Your task to perform on an android device: open device folders in google photos Image 0: 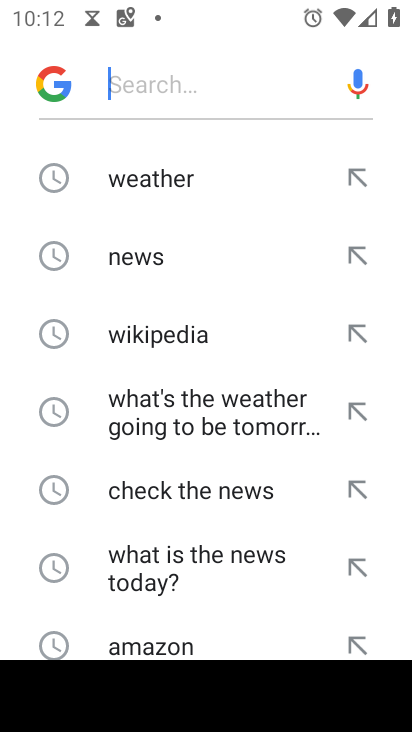
Step 0: press back button
Your task to perform on an android device: open device folders in google photos Image 1: 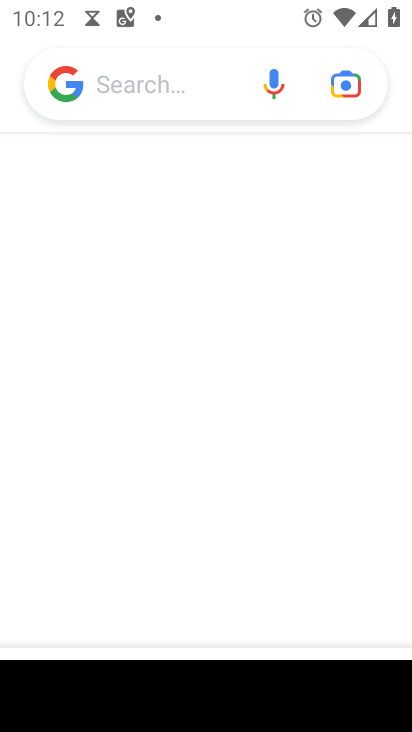
Step 1: press back button
Your task to perform on an android device: open device folders in google photos Image 2: 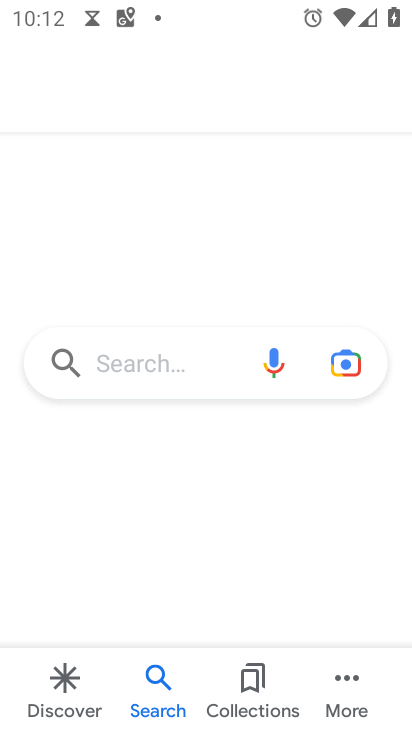
Step 2: press back button
Your task to perform on an android device: open device folders in google photos Image 3: 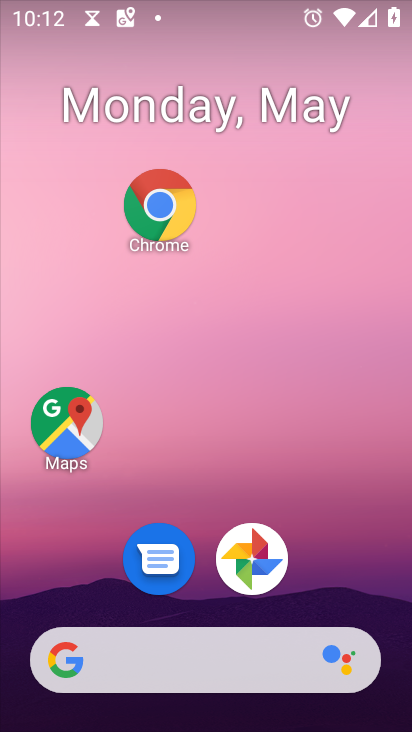
Step 3: drag from (223, 705) to (154, 2)
Your task to perform on an android device: open device folders in google photos Image 4: 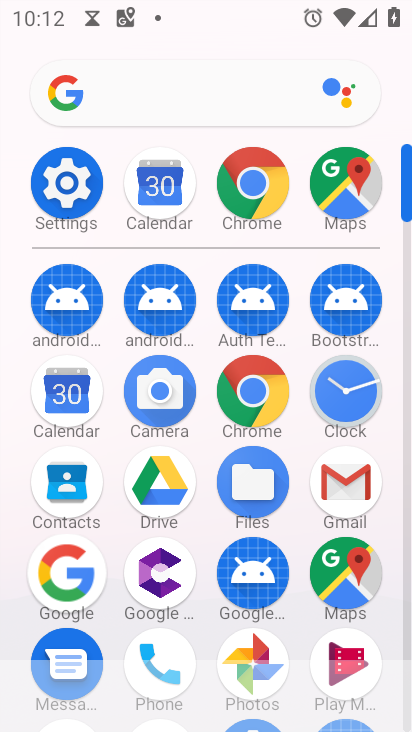
Step 4: click (250, 661)
Your task to perform on an android device: open device folders in google photos Image 5: 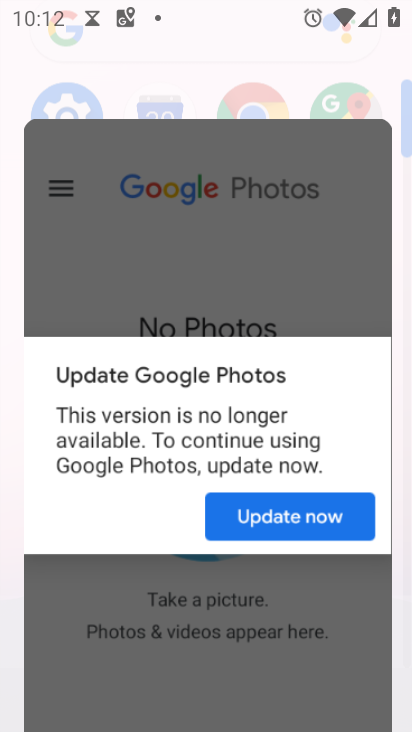
Step 5: click (249, 653)
Your task to perform on an android device: open device folders in google photos Image 6: 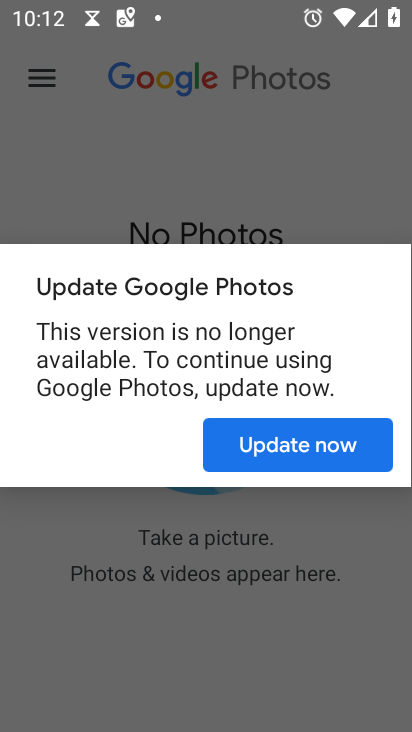
Step 6: click (102, 166)
Your task to perform on an android device: open device folders in google photos Image 7: 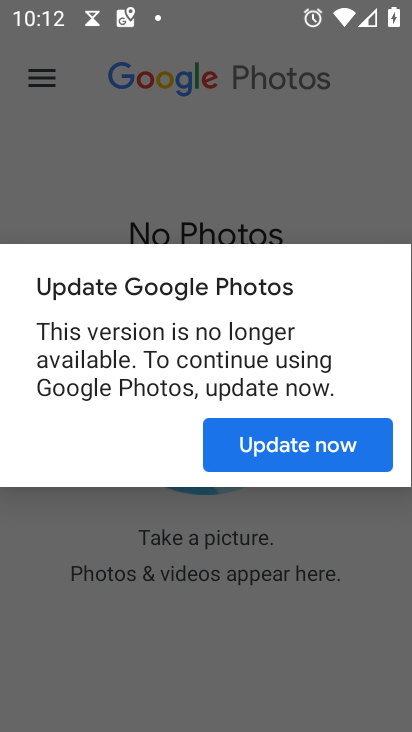
Step 7: click (107, 165)
Your task to perform on an android device: open device folders in google photos Image 8: 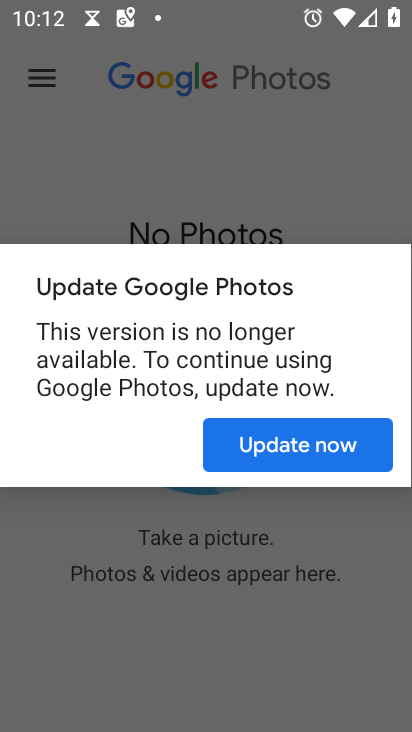
Step 8: click (113, 164)
Your task to perform on an android device: open device folders in google photos Image 9: 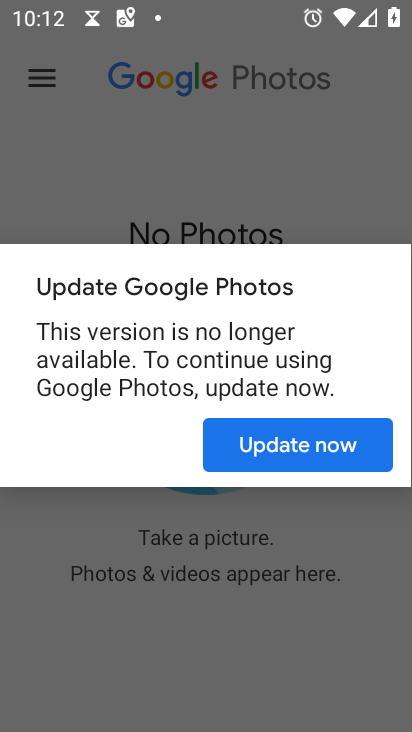
Step 9: click (113, 163)
Your task to perform on an android device: open device folders in google photos Image 10: 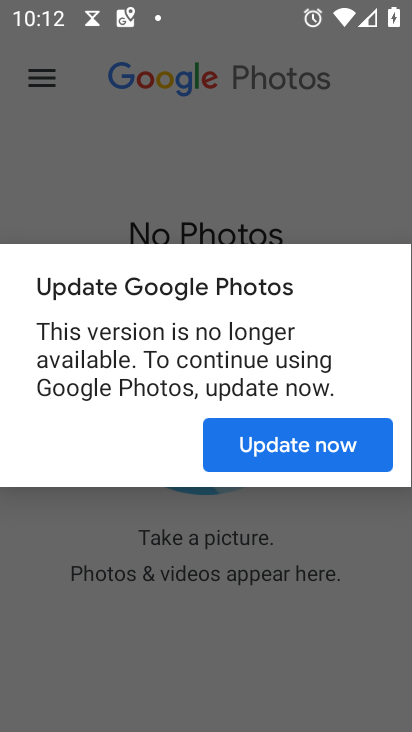
Step 10: click (114, 162)
Your task to perform on an android device: open device folders in google photos Image 11: 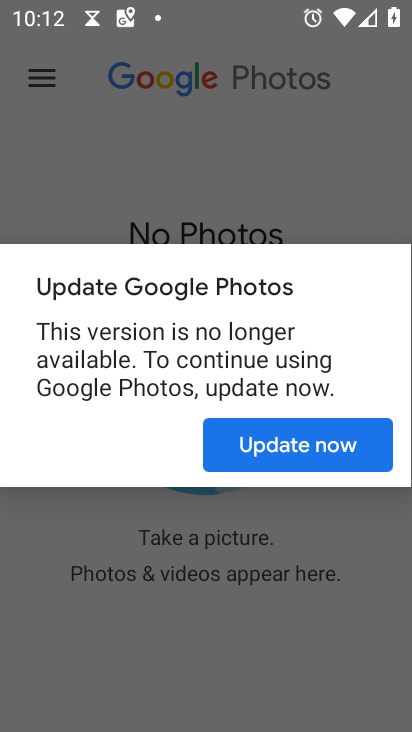
Step 11: click (114, 162)
Your task to perform on an android device: open device folders in google photos Image 12: 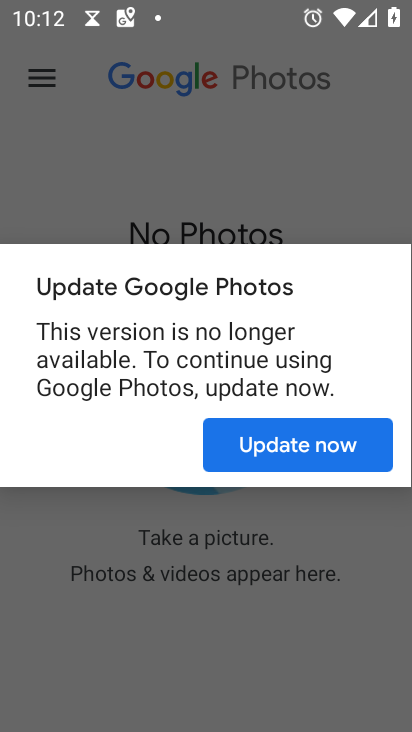
Step 12: click (156, 154)
Your task to perform on an android device: open device folders in google photos Image 13: 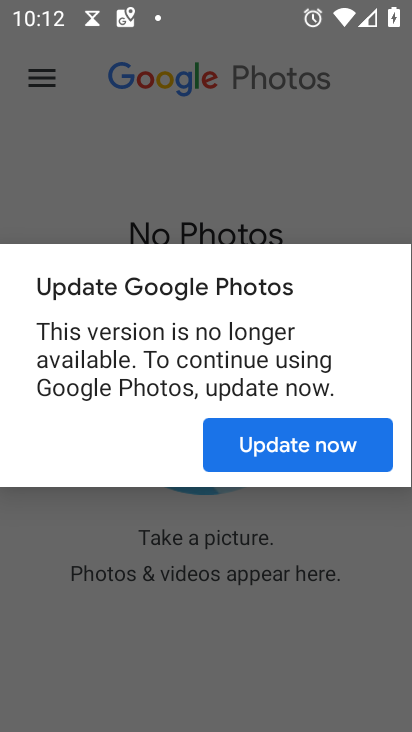
Step 13: click (156, 154)
Your task to perform on an android device: open device folders in google photos Image 14: 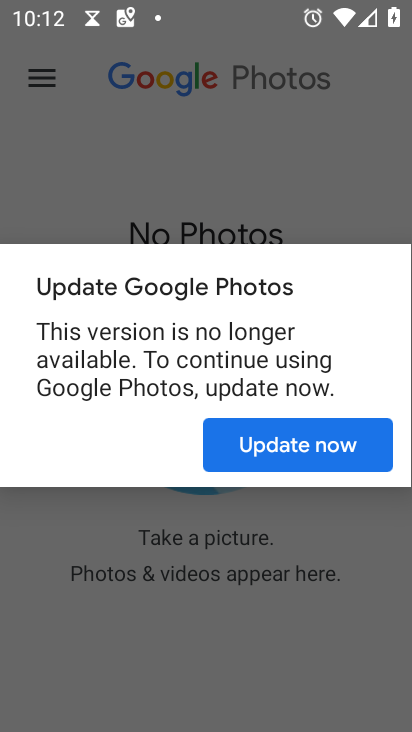
Step 14: click (158, 154)
Your task to perform on an android device: open device folders in google photos Image 15: 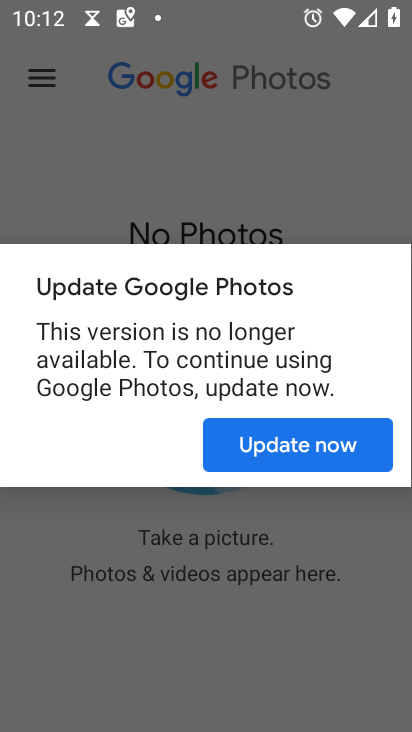
Step 15: click (158, 154)
Your task to perform on an android device: open device folders in google photos Image 16: 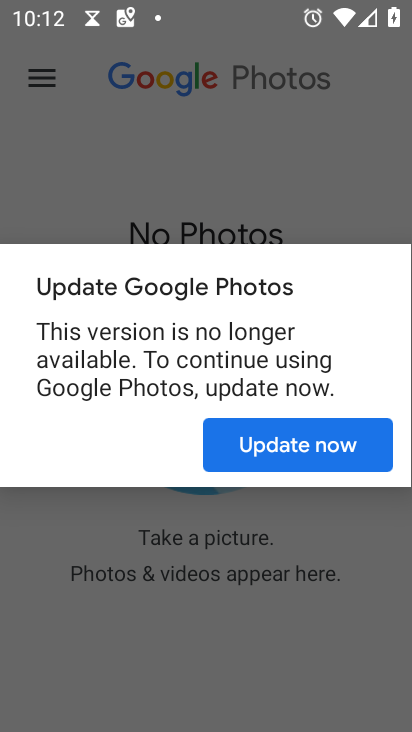
Step 16: click (158, 154)
Your task to perform on an android device: open device folders in google photos Image 17: 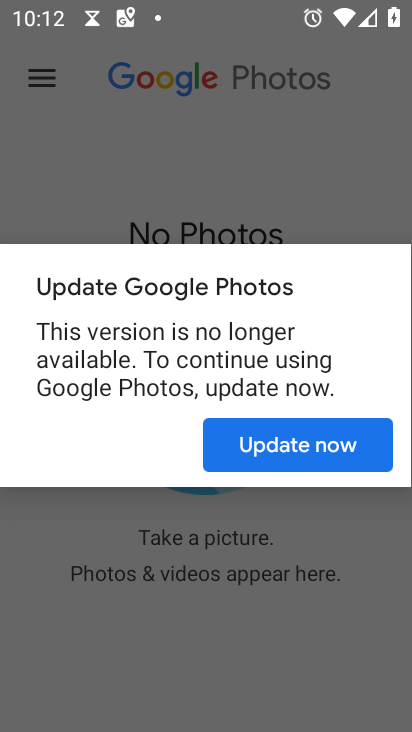
Step 17: click (318, 515)
Your task to perform on an android device: open device folders in google photos Image 18: 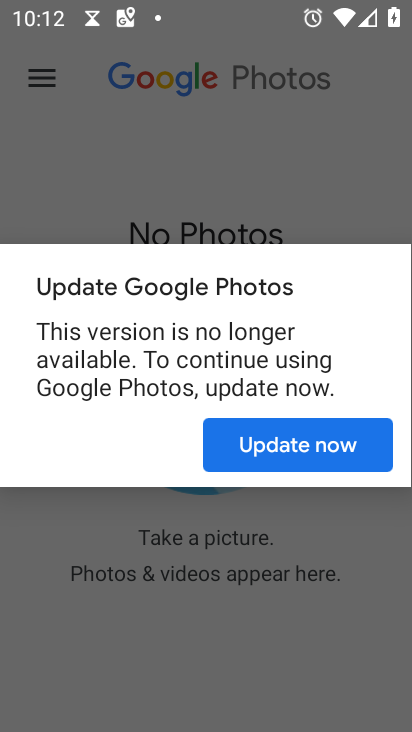
Step 18: click (341, 497)
Your task to perform on an android device: open device folders in google photos Image 19: 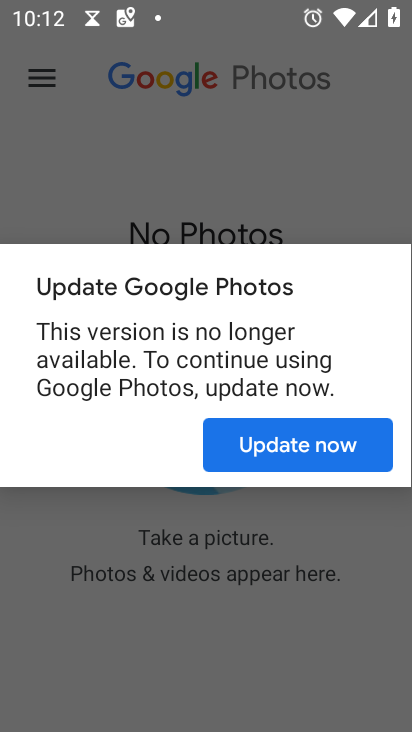
Step 19: press back button
Your task to perform on an android device: open device folders in google photos Image 20: 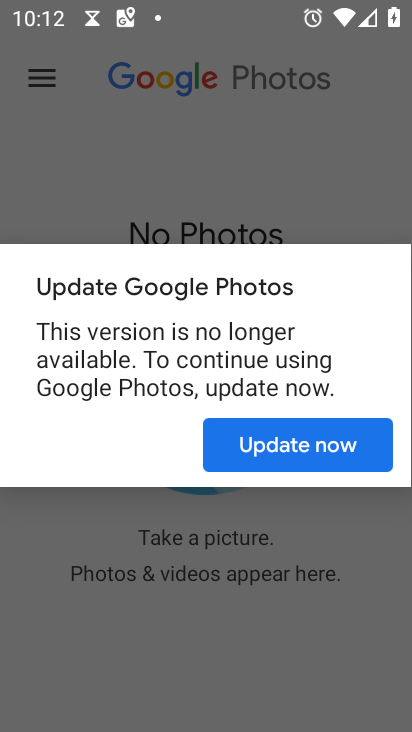
Step 20: press back button
Your task to perform on an android device: open device folders in google photos Image 21: 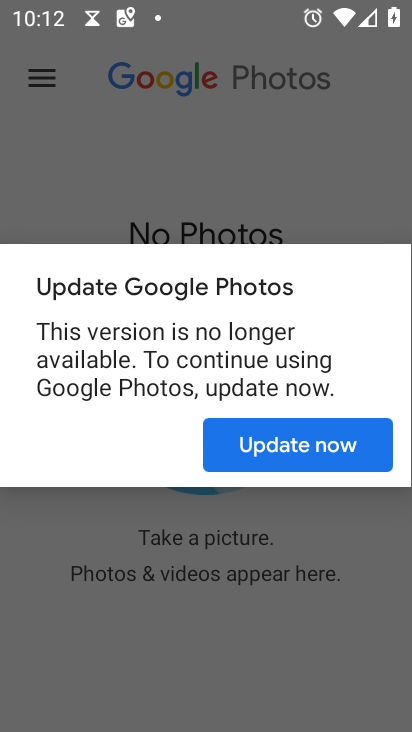
Step 21: press back button
Your task to perform on an android device: open device folders in google photos Image 22: 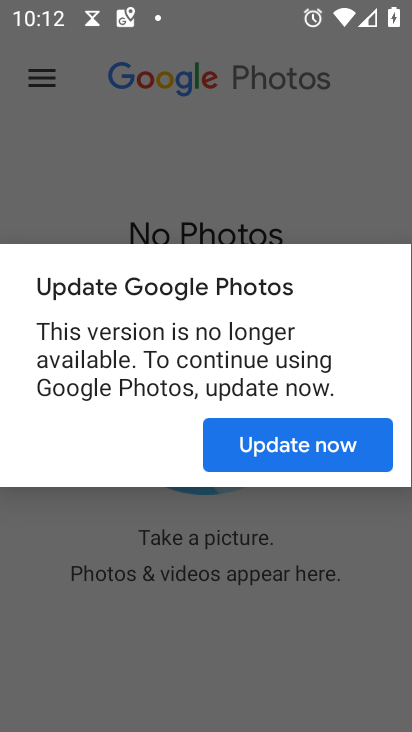
Step 22: click (301, 446)
Your task to perform on an android device: open device folders in google photos Image 23: 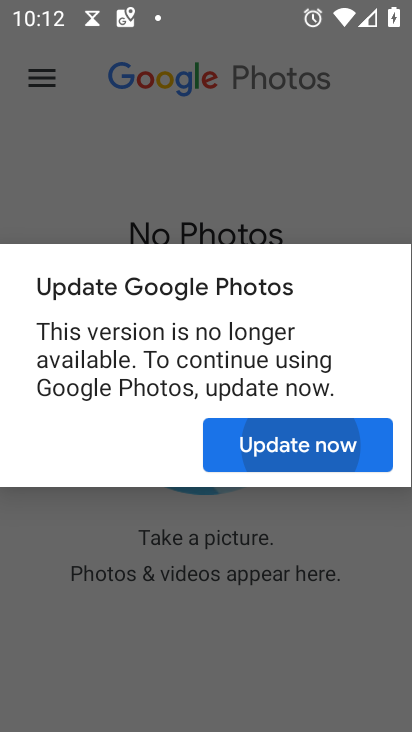
Step 23: click (301, 446)
Your task to perform on an android device: open device folders in google photos Image 24: 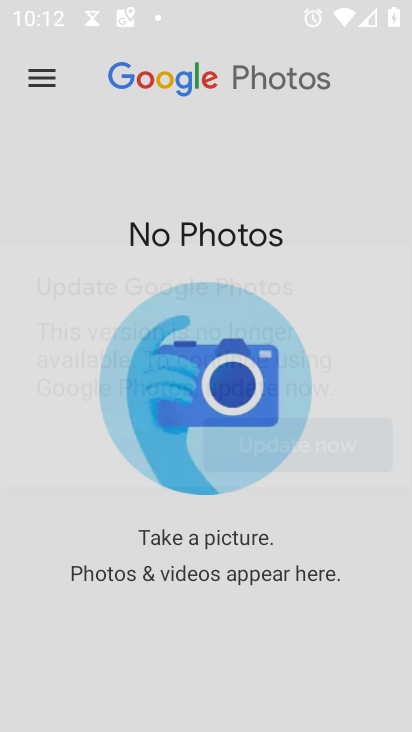
Step 24: click (302, 446)
Your task to perform on an android device: open device folders in google photos Image 25: 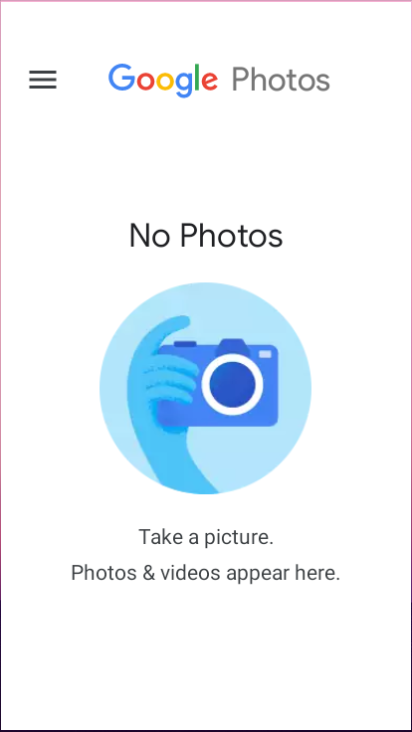
Step 25: click (302, 446)
Your task to perform on an android device: open device folders in google photos Image 26: 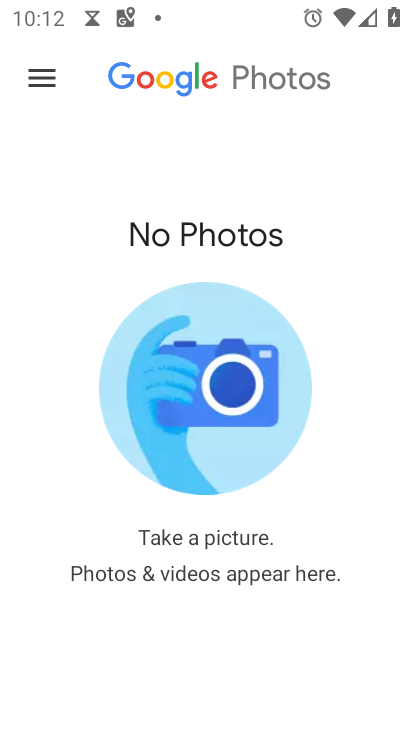
Step 26: click (212, 370)
Your task to perform on an android device: open device folders in google photos Image 27: 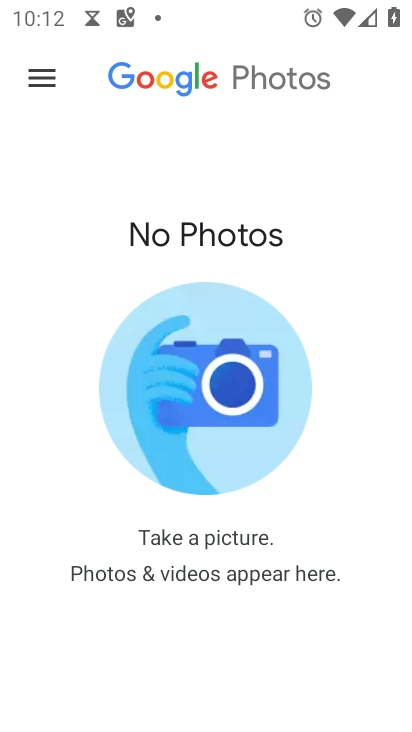
Step 27: click (213, 368)
Your task to perform on an android device: open device folders in google photos Image 28: 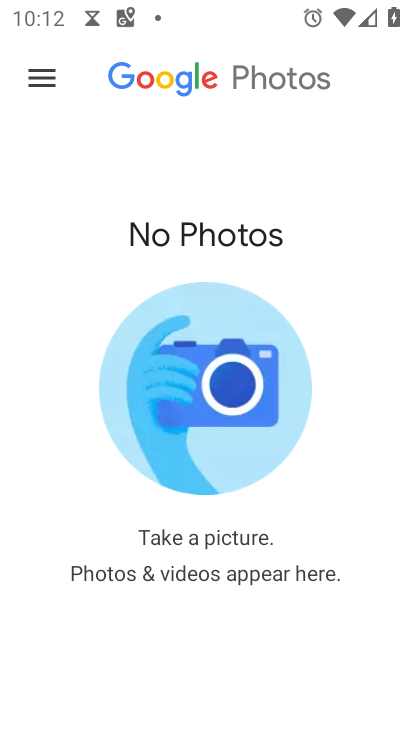
Step 28: click (220, 364)
Your task to perform on an android device: open device folders in google photos Image 29: 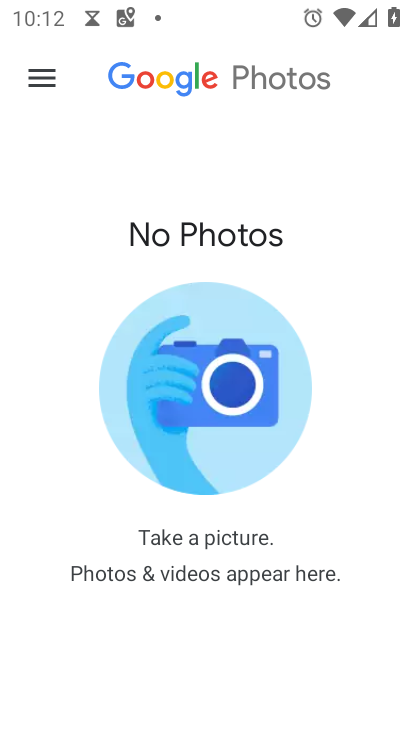
Step 29: click (228, 376)
Your task to perform on an android device: open device folders in google photos Image 30: 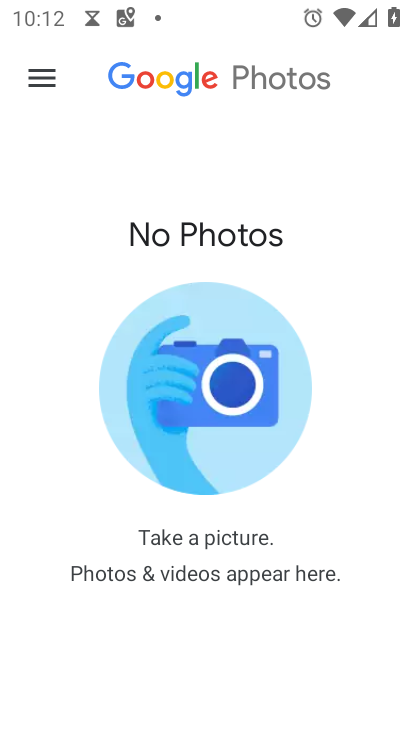
Step 30: click (228, 376)
Your task to perform on an android device: open device folders in google photos Image 31: 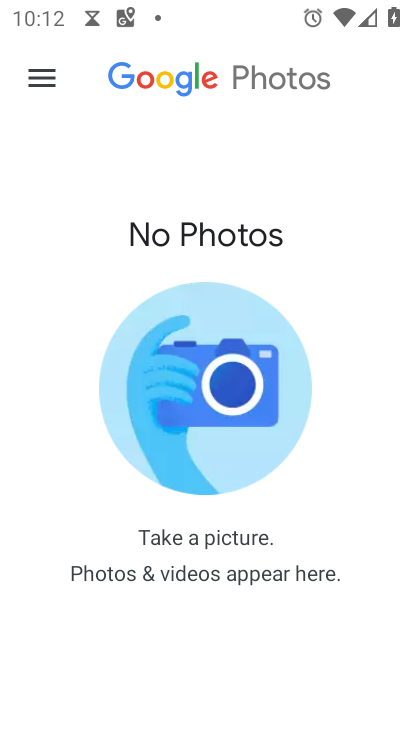
Step 31: click (228, 376)
Your task to perform on an android device: open device folders in google photos Image 32: 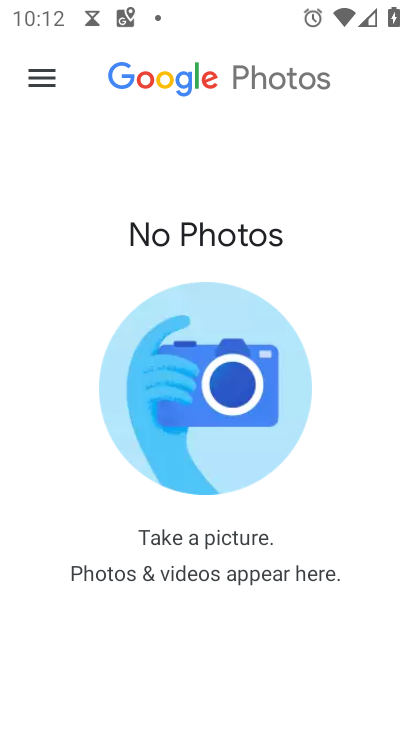
Step 32: click (247, 377)
Your task to perform on an android device: open device folders in google photos Image 33: 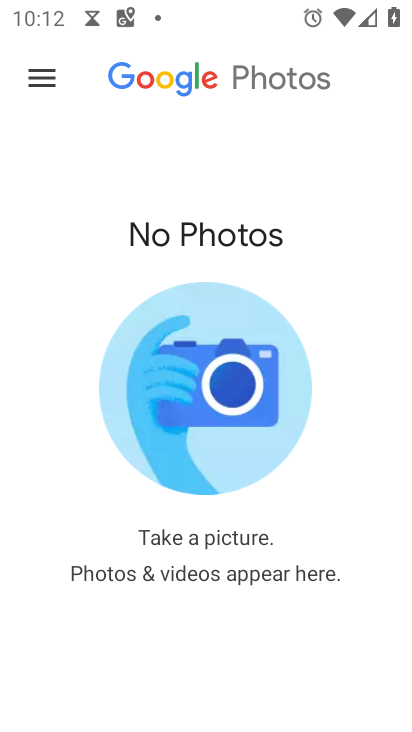
Step 33: click (237, 373)
Your task to perform on an android device: open device folders in google photos Image 34: 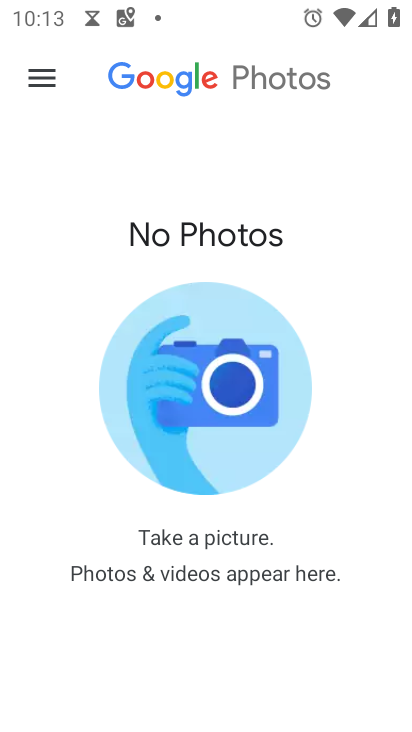
Step 34: click (238, 376)
Your task to perform on an android device: open device folders in google photos Image 35: 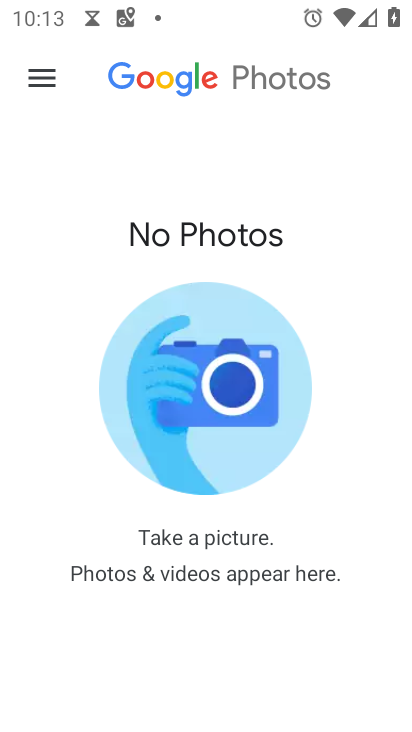
Step 35: click (225, 358)
Your task to perform on an android device: open device folders in google photos Image 36: 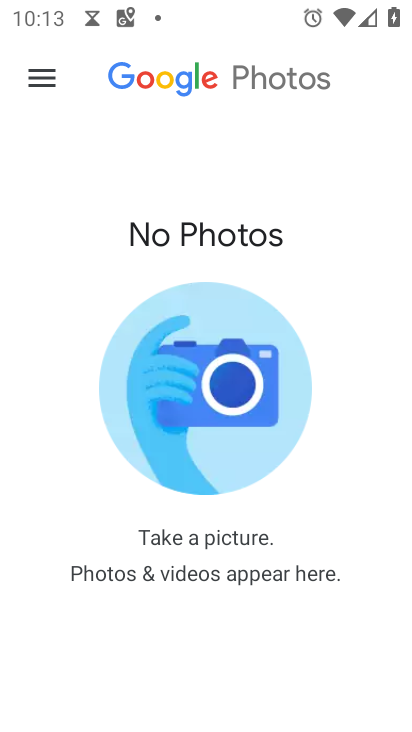
Step 36: click (223, 364)
Your task to perform on an android device: open device folders in google photos Image 37: 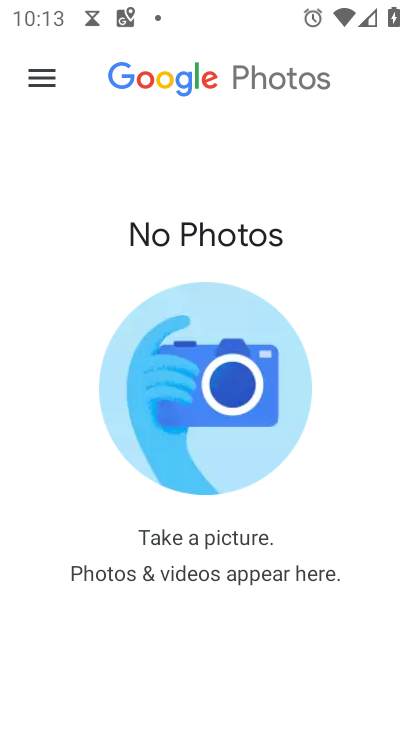
Step 37: click (223, 364)
Your task to perform on an android device: open device folders in google photos Image 38: 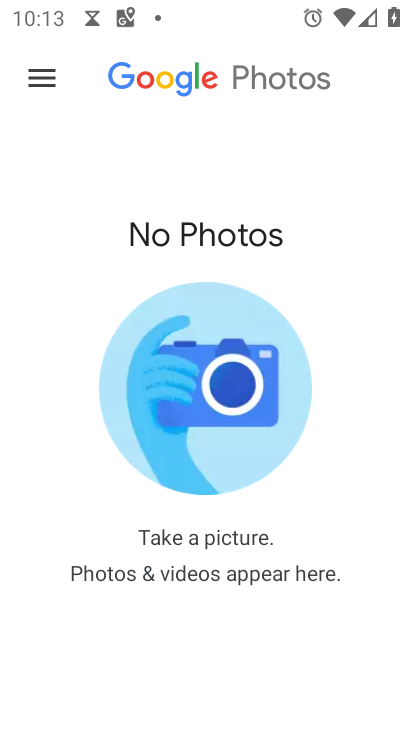
Step 38: click (223, 367)
Your task to perform on an android device: open device folders in google photos Image 39: 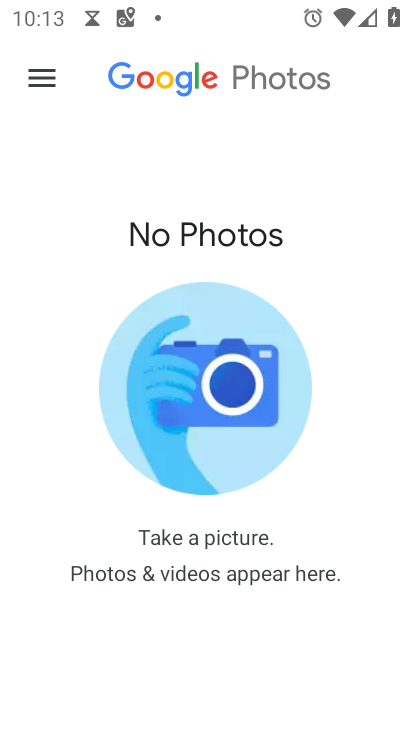
Step 39: click (217, 347)
Your task to perform on an android device: open device folders in google photos Image 40: 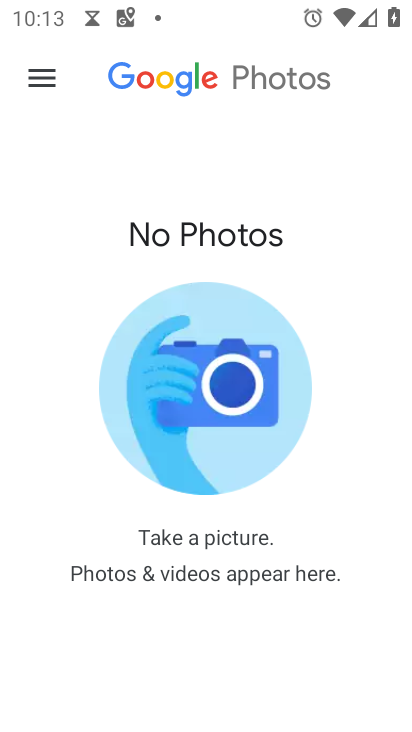
Step 40: click (222, 351)
Your task to perform on an android device: open device folders in google photos Image 41: 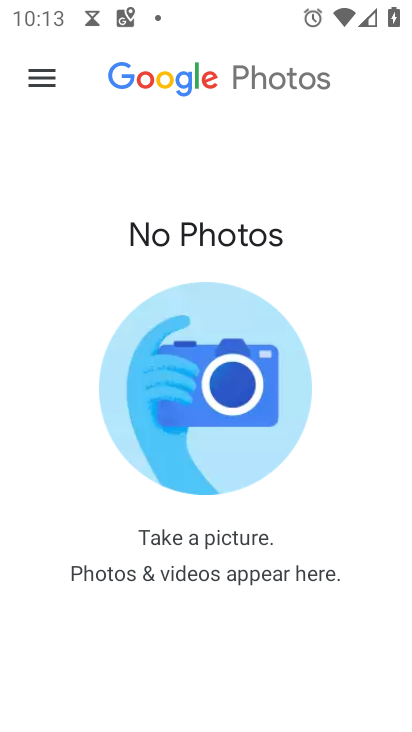
Step 41: click (222, 352)
Your task to perform on an android device: open device folders in google photos Image 42: 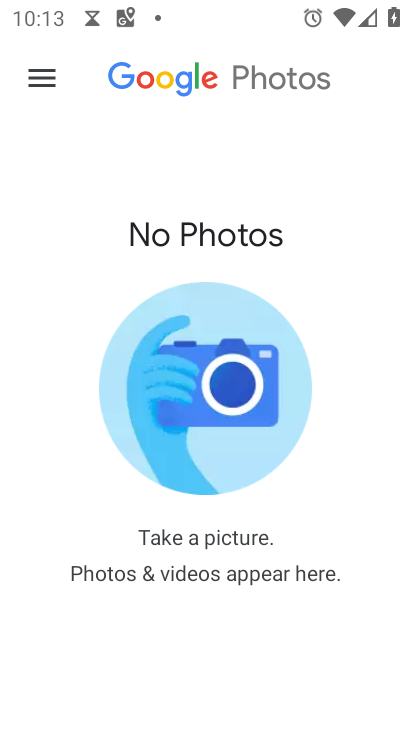
Step 42: drag from (57, 90) to (49, 228)
Your task to perform on an android device: open device folders in google photos Image 43: 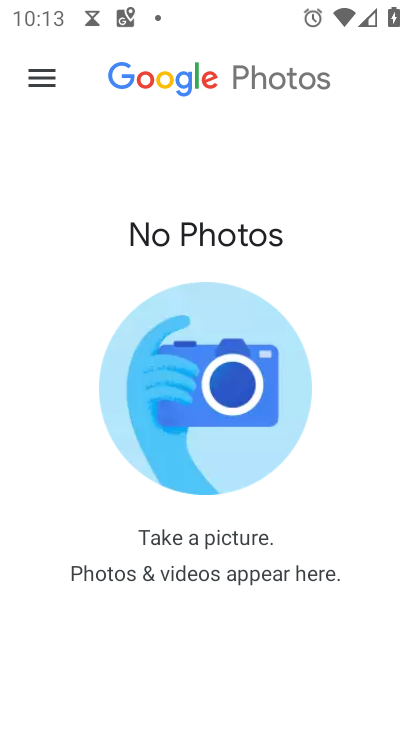
Step 43: click (49, 83)
Your task to perform on an android device: open device folders in google photos Image 44: 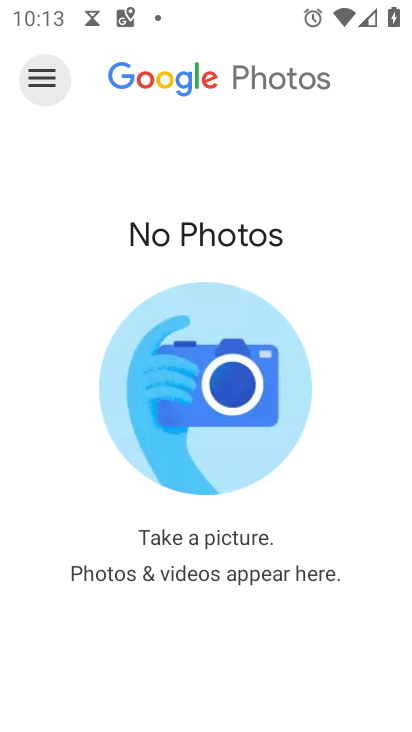
Step 44: click (49, 83)
Your task to perform on an android device: open device folders in google photos Image 45: 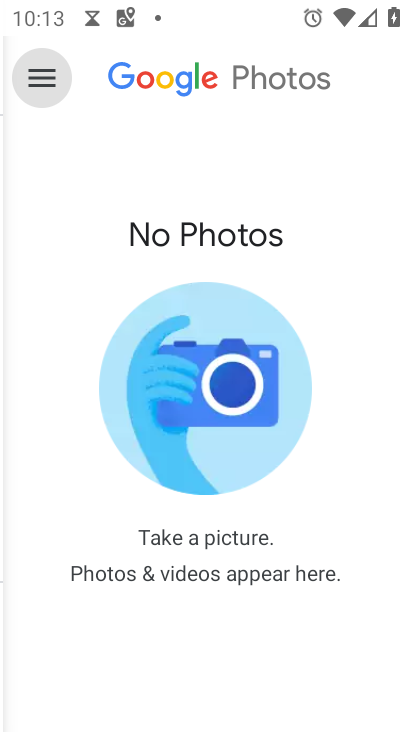
Step 45: click (49, 83)
Your task to perform on an android device: open device folders in google photos Image 46: 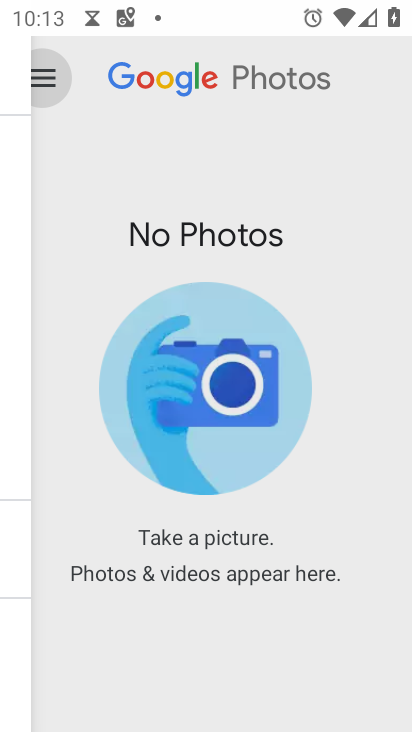
Step 46: click (49, 83)
Your task to perform on an android device: open device folders in google photos Image 47: 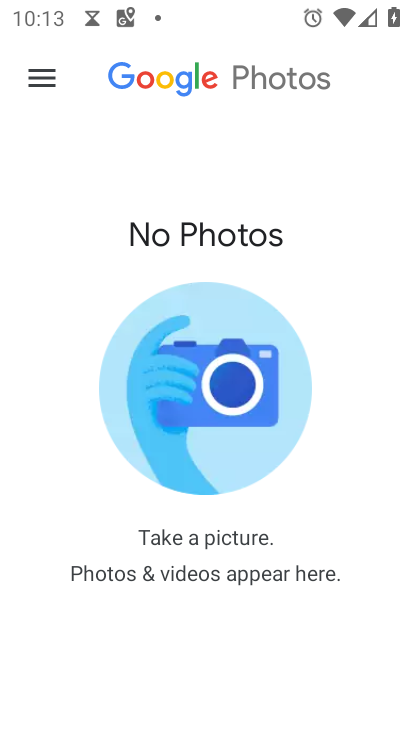
Step 47: click (44, 74)
Your task to perform on an android device: open device folders in google photos Image 48: 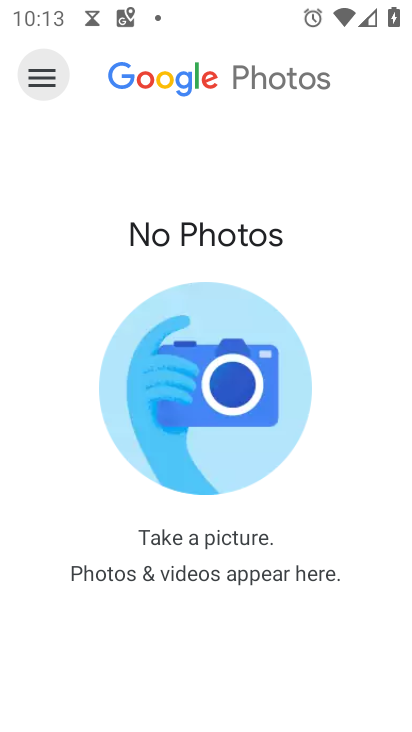
Step 48: click (45, 75)
Your task to perform on an android device: open device folders in google photos Image 49: 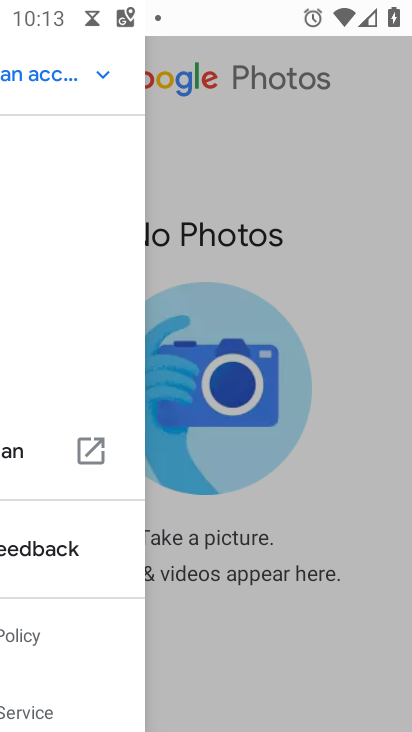
Step 49: drag from (45, 75) to (22, 26)
Your task to perform on an android device: open device folders in google photos Image 50: 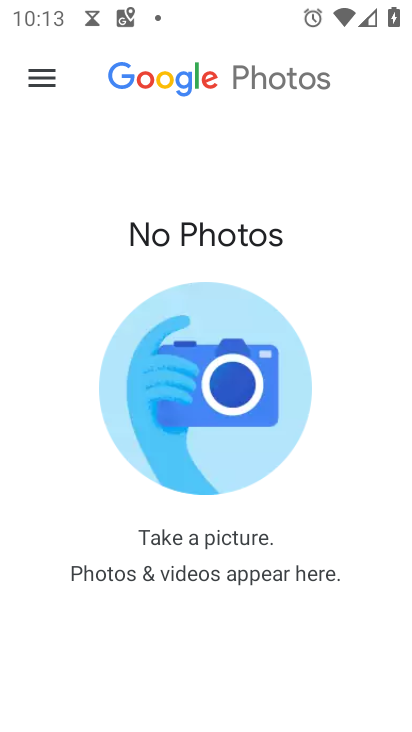
Step 50: click (40, 83)
Your task to perform on an android device: open device folders in google photos Image 51: 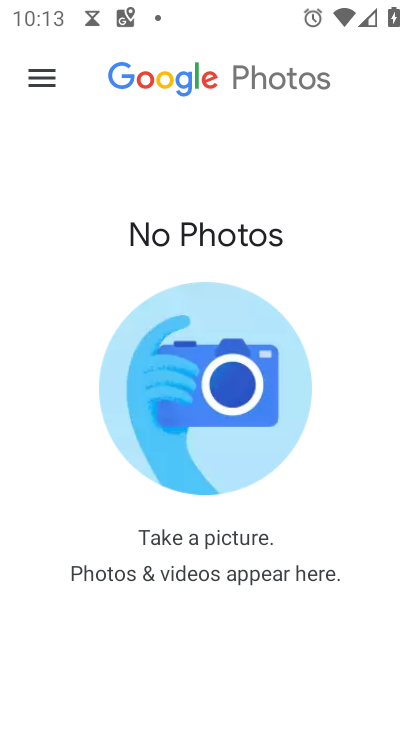
Step 51: click (51, 80)
Your task to perform on an android device: open device folders in google photos Image 52: 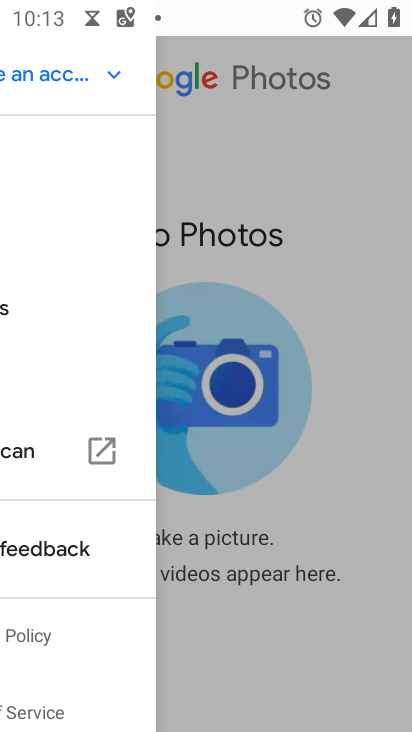
Step 52: drag from (51, 80) to (130, 317)
Your task to perform on an android device: open device folders in google photos Image 53: 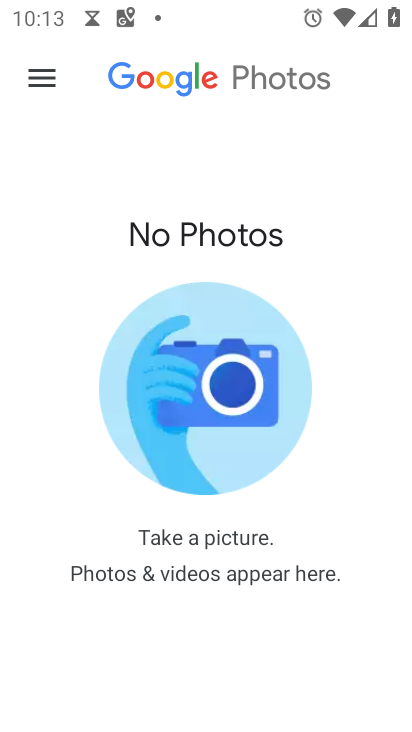
Step 53: click (37, 70)
Your task to perform on an android device: open device folders in google photos Image 54: 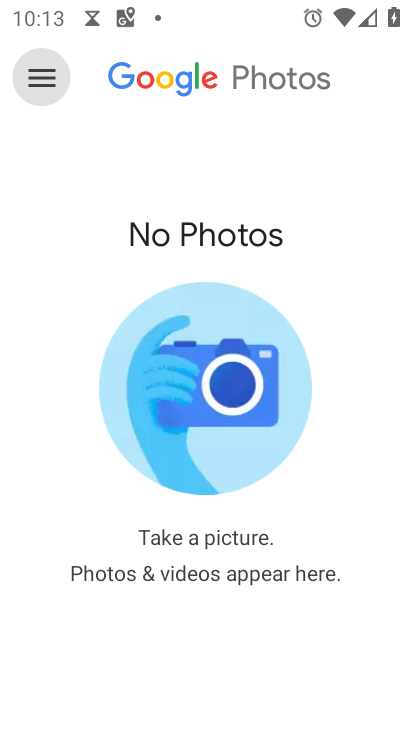
Step 54: click (47, 72)
Your task to perform on an android device: open device folders in google photos Image 55: 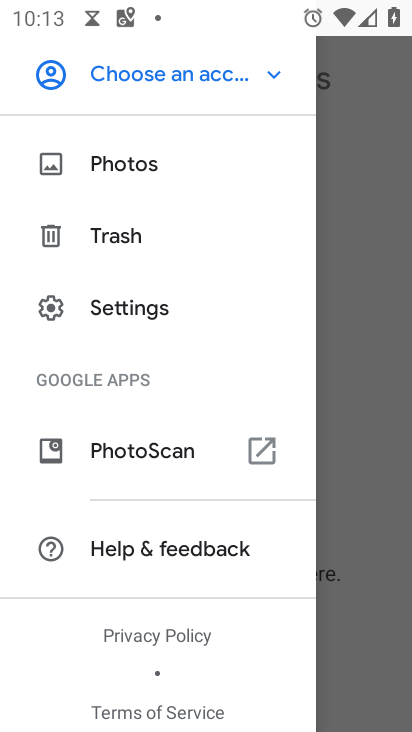
Step 55: click (125, 308)
Your task to perform on an android device: open device folders in google photos Image 56: 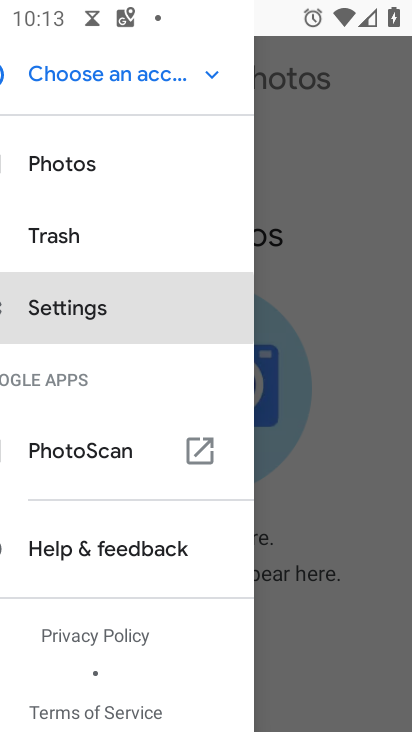
Step 56: click (126, 307)
Your task to perform on an android device: open device folders in google photos Image 57: 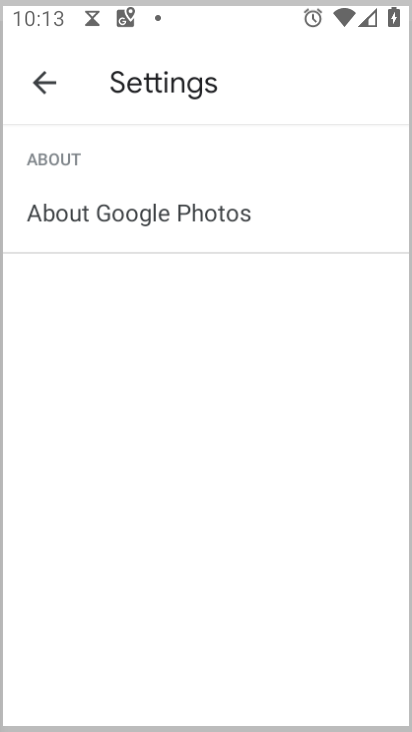
Step 57: click (126, 307)
Your task to perform on an android device: open device folders in google photos Image 58: 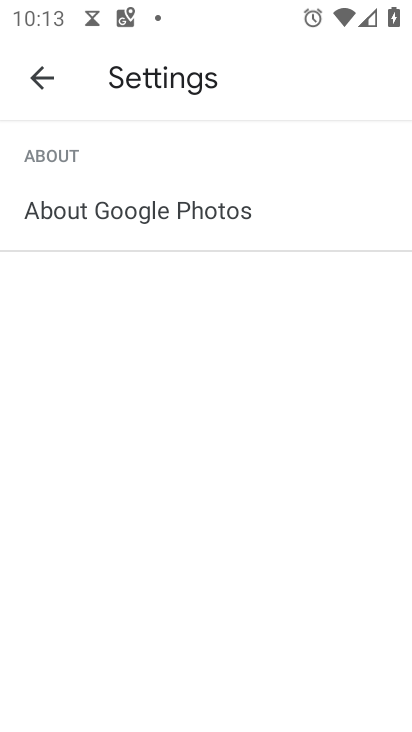
Step 58: click (50, 76)
Your task to perform on an android device: open device folders in google photos Image 59: 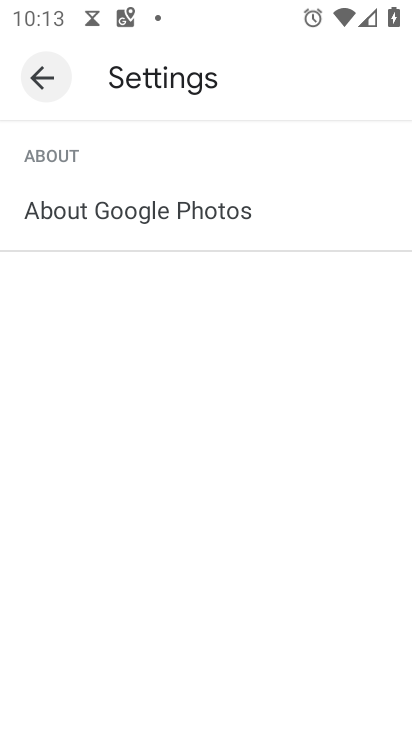
Step 59: click (43, 83)
Your task to perform on an android device: open device folders in google photos Image 60: 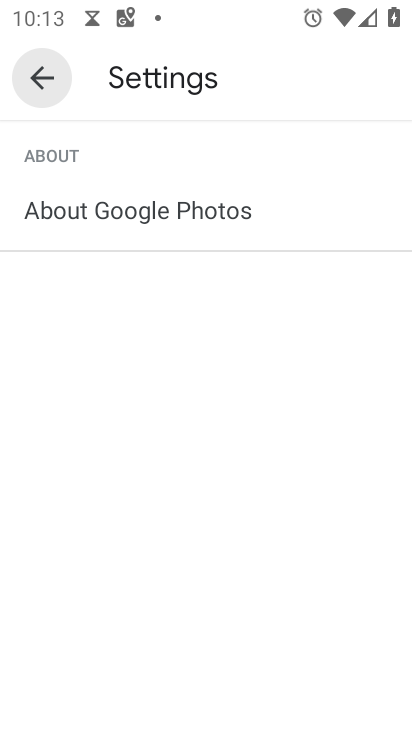
Step 60: click (43, 84)
Your task to perform on an android device: open device folders in google photos Image 61: 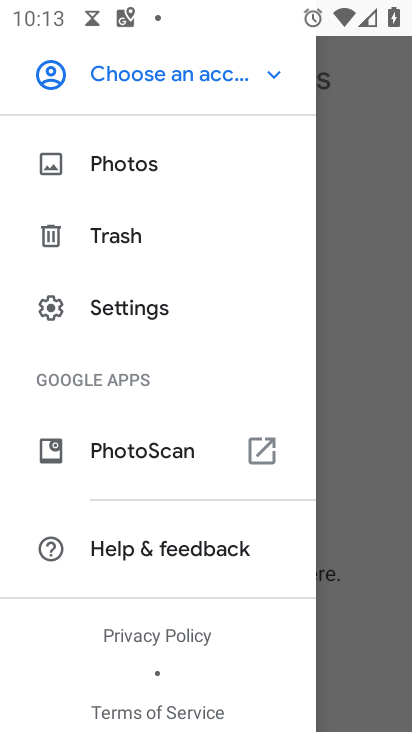
Step 61: task complete